Your task to perform on an android device: Clear the shopping cart on ebay.com. Search for "sony triple a" on ebay.com, select the first entry, add it to the cart, then select checkout. Image 0: 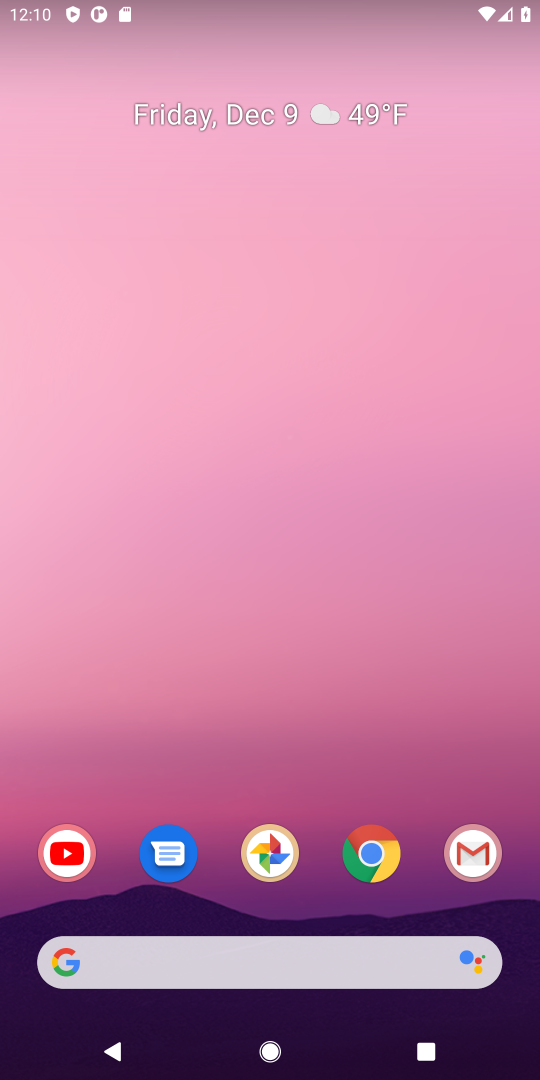
Step 0: drag from (323, 926) to (313, 60)
Your task to perform on an android device: Clear the shopping cart on ebay.com. Search for "sony triple a" on ebay.com, select the first entry, add it to the cart, then select checkout. Image 1: 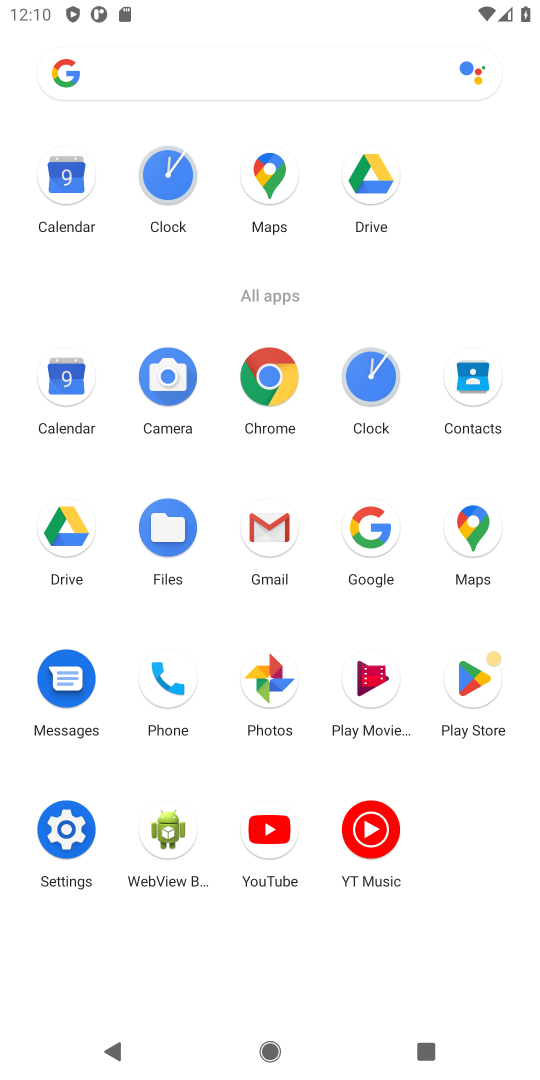
Step 1: click (371, 528)
Your task to perform on an android device: Clear the shopping cart on ebay.com. Search for "sony triple a" on ebay.com, select the first entry, add it to the cart, then select checkout. Image 2: 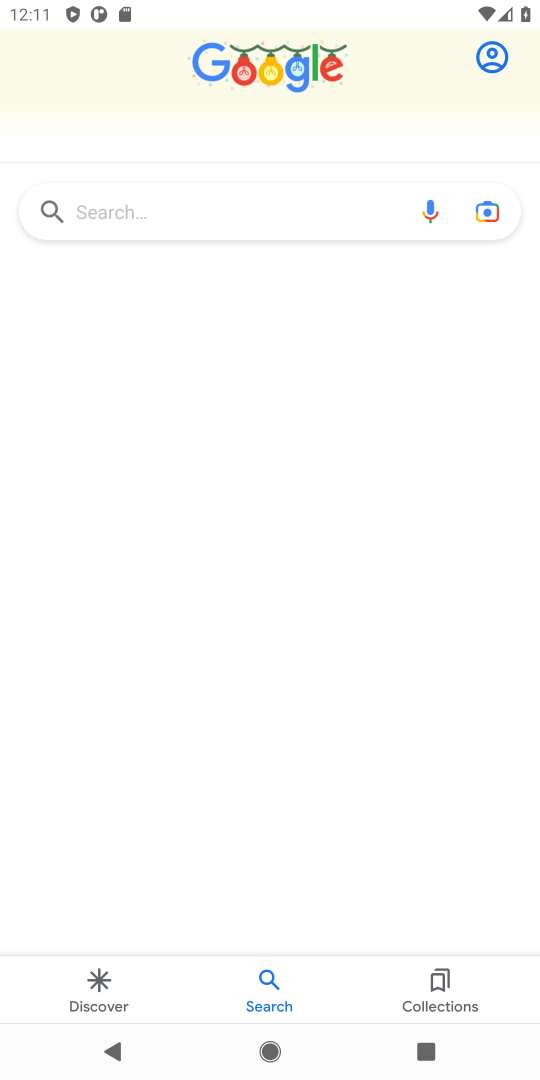
Step 2: click (105, 208)
Your task to perform on an android device: Clear the shopping cart on ebay.com. Search for "sony triple a" on ebay.com, select the first entry, add it to the cart, then select checkout. Image 3: 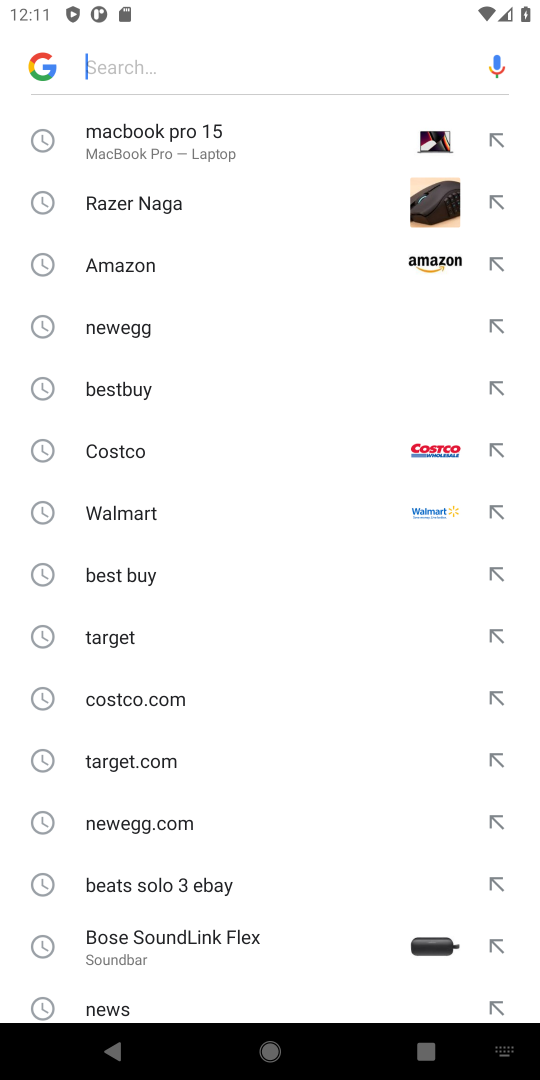
Step 3: type "ebay.com"
Your task to perform on an android device: Clear the shopping cart on ebay.com. Search for "sony triple a" on ebay.com, select the first entry, add it to the cart, then select checkout. Image 4: 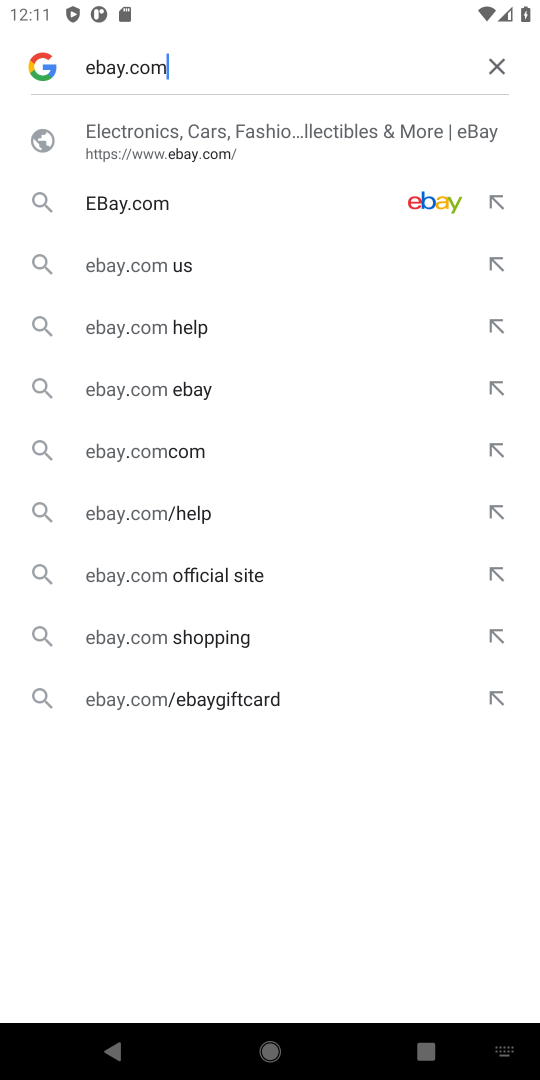
Step 4: click (154, 140)
Your task to perform on an android device: Clear the shopping cart on ebay.com. Search for "sony triple a" on ebay.com, select the first entry, add it to the cart, then select checkout. Image 5: 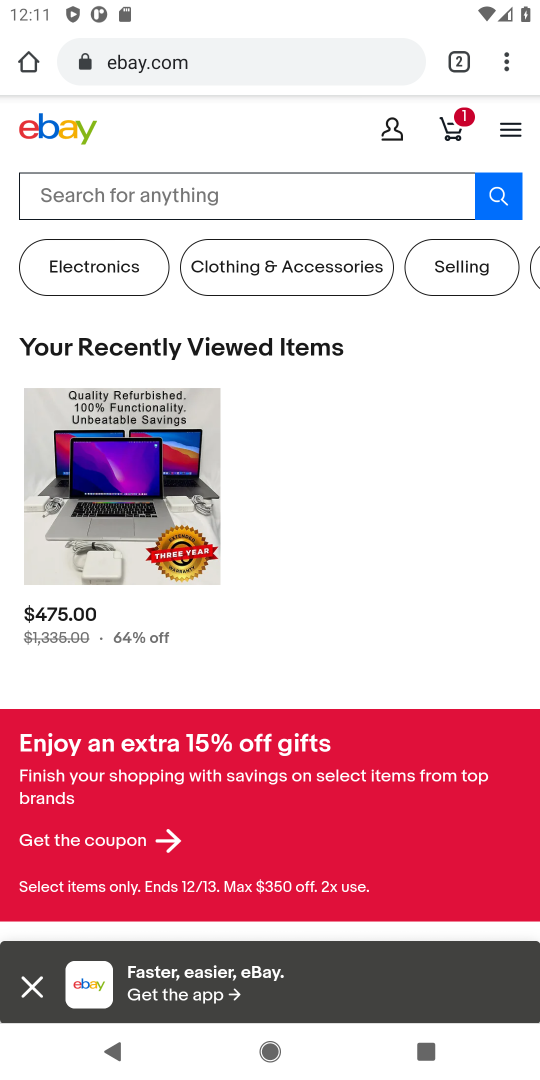
Step 5: click (148, 201)
Your task to perform on an android device: Clear the shopping cart on ebay.com. Search for "sony triple a" on ebay.com, select the first entry, add it to the cart, then select checkout. Image 6: 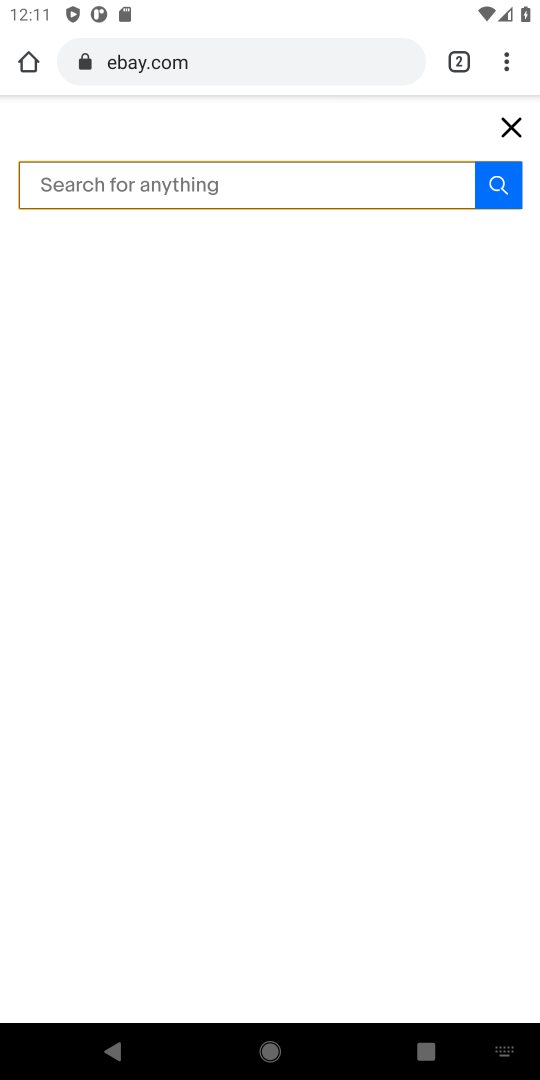
Step 6: type "sony triple a"
Your task to perform on an android device: Clear the shopping cart on ebay.com. Search for "sony triple a" on ebay.com, select the first entry, add it to the cart, then select checkout. Image 7: 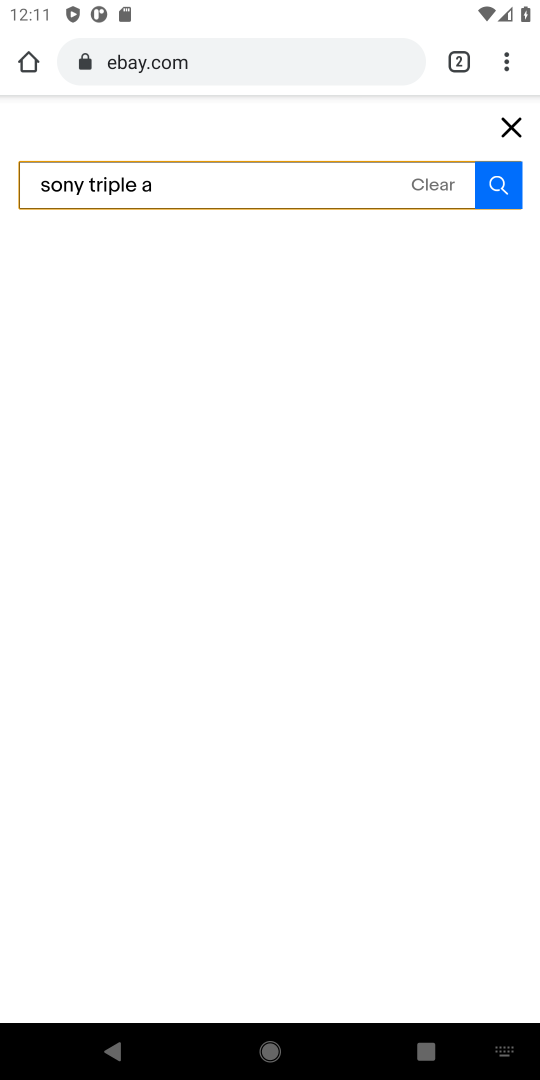
Step 7: click (495, 186)
Your task to perform on an android device: Clear the shopping cart on ebay.com. Search for "sony triple a" on ebay.com, select the first entry, add it to the cart, then select checkout. Image 8: 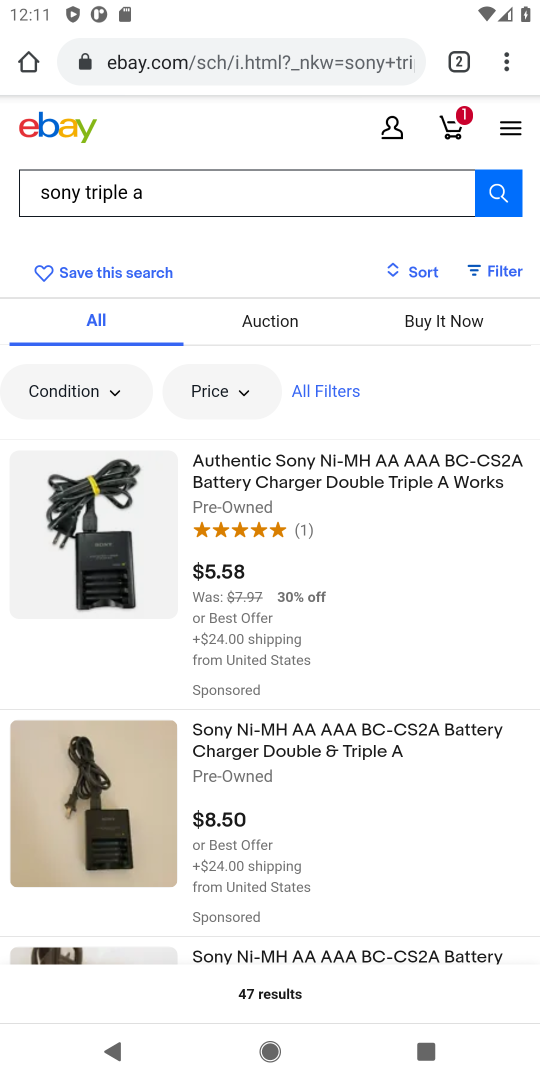
Step 8: click (272, 474)
Your task to perform on an android device: Clear the shopping cart on ebay.com. Search for "sony triple a" on ebay.com, select the first entry, add it to the cart, then select checkout. Image 9: 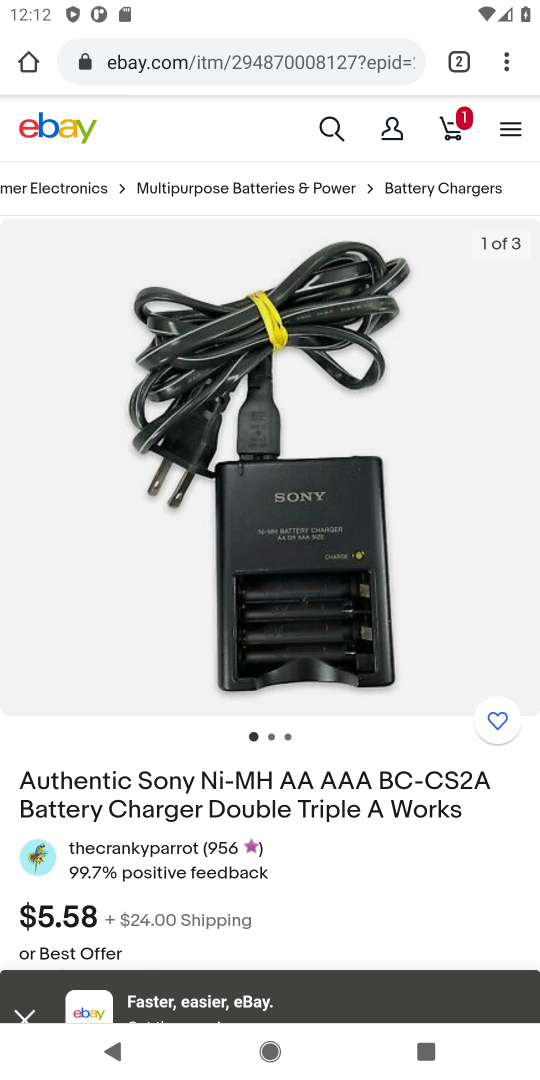
Step 9: drag from (266, 889) to (268, 225)
Your task to perform on an android device: Clear the shopping cart on ebay.com. Search for "sony triple a" on ebay.com, select the first entry, add it to the cart, then select checkout. Image 10: 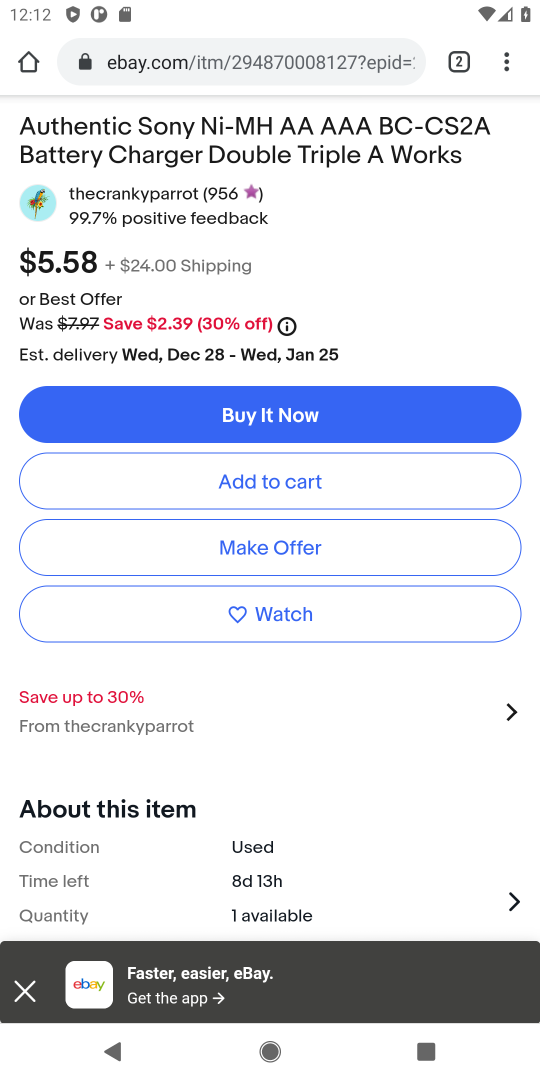
Step 10: click (293, 493)
Your task to perform on an android device: Clear the shopping cart on ebay.com. Search for "sony triple a" on ebay.com, select the first entry, add it to the cart, then select checkout. Image 11: 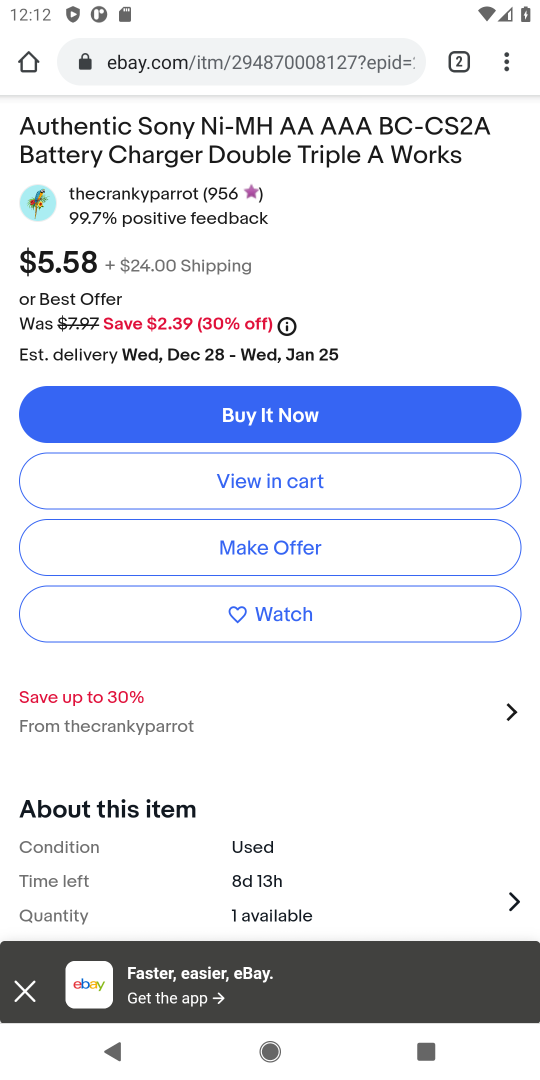
Step 11: click (289, 486)
Your task to perform on an android device: Clear the shopping cart on ebay.com. Search for "sony triple a" on ebay.com, select the first entry, add it to the cart, then select checkout. Image 12: 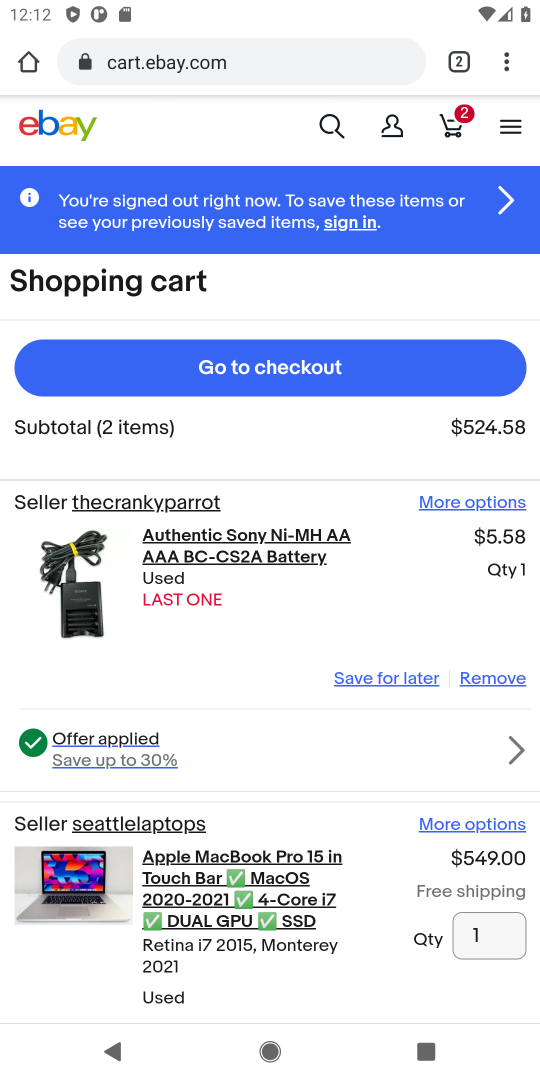
Step 12: drag from (231, 767) to (237, 335)
Your task to perform on an android device: Clear the shopping cart on ebay.com. Search for "sony triple a" on ebay.com, select the first entry, add it to the cart, then select checkout. Image 13: 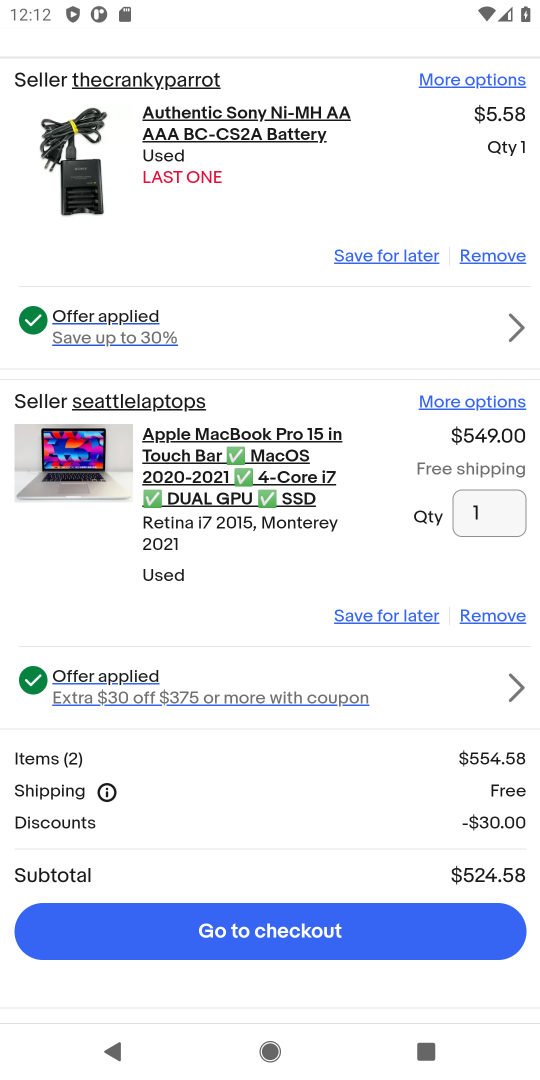
Step 13: drag from (369, 243) to (313, 686)
Your task to perform on an android device: Clear the shopping cart on ebay.com. Search for "sony triple a" on ebay.com, select the first entry, add it to the cart, then select checkout. Image 14: 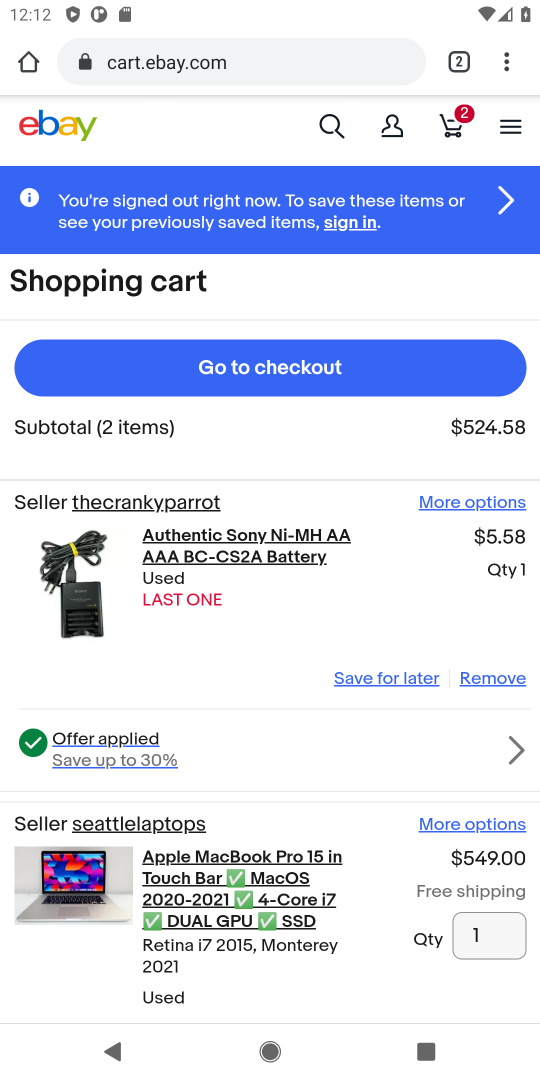
Step 14: click (296, 370)
Your task to perform on an android device: Clear the shopping cart on ebay.com. Search for "sony triple a" on ebay.com, select the first entry, add it to the cart, then select checkout. Image 15: 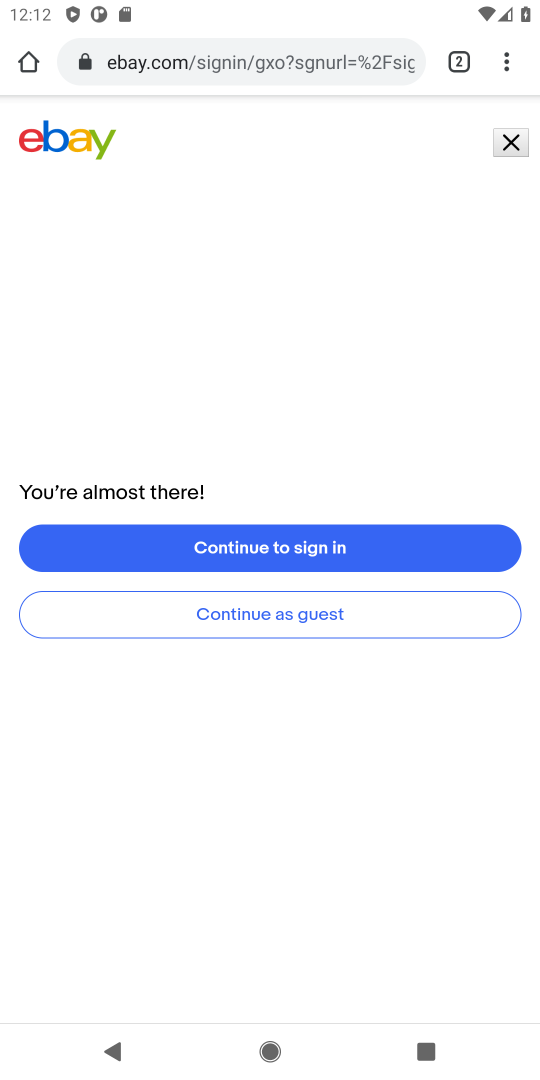
Step 15: task complete